Your task to perform on an android device: empty trash in the gmail app Image 0: 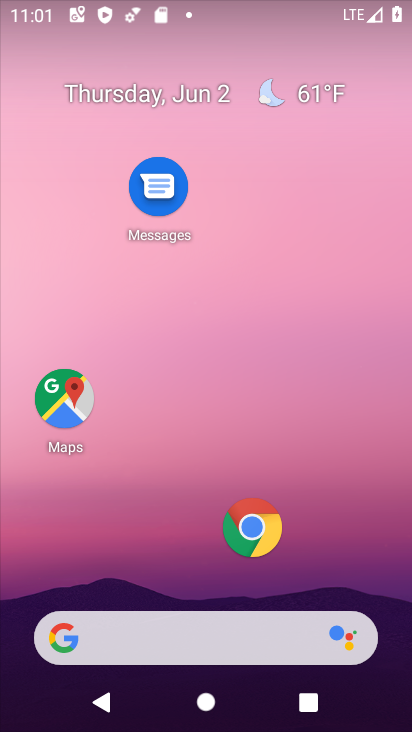
Step 0: press home button
Your task to perform on an android device: empty trash in the gmail app Image 1: 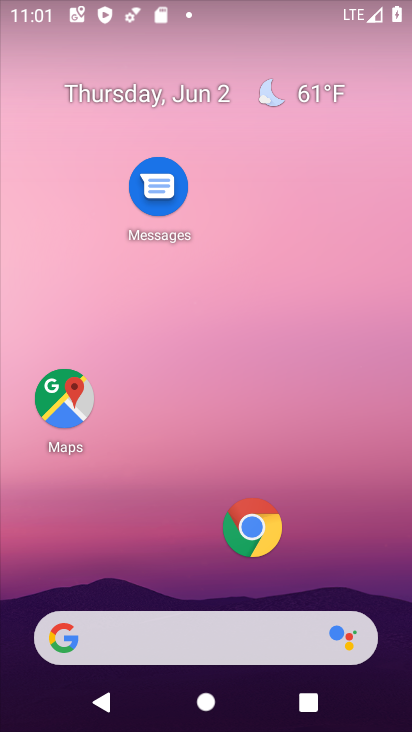
Step 1: drag from (210, 587) to (313, 90)
Your task to perform on an android device: empty trash in the gmail app Image 2: 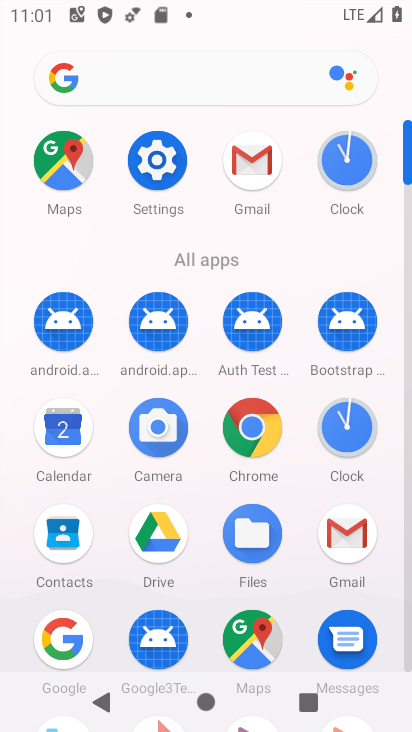
Step 2: click (250, 148)
Your task to perform on an android device: empty trash in the gmail app Image 3: 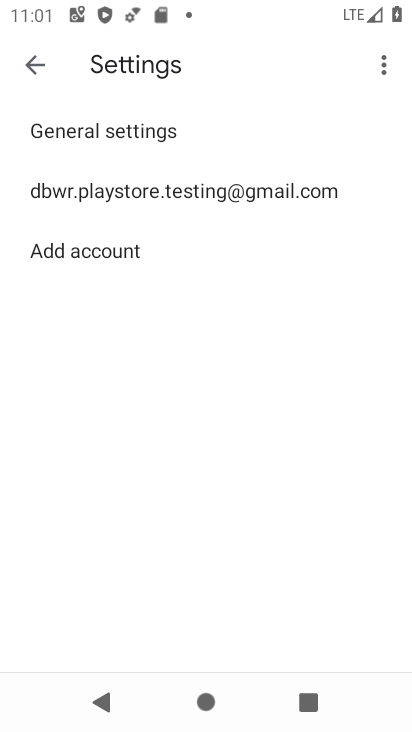
Step 3: click (36, 60)
Your task to perform on an android device: empty trash in the gmail app Image 4: 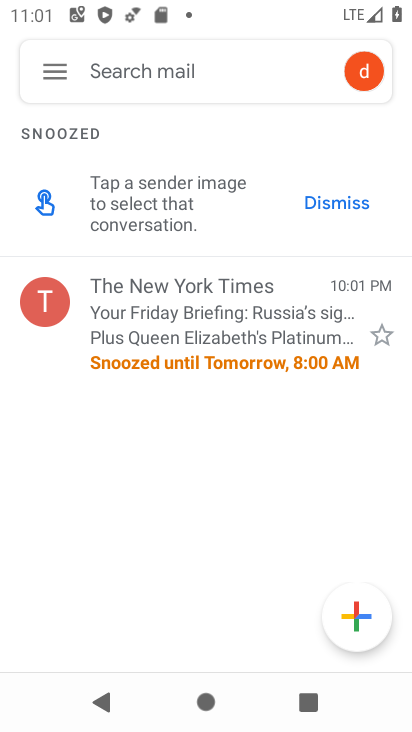
Step 4: click (44, 67)
Your task to perform on an android device: empty trash in the gmail app Image 5: 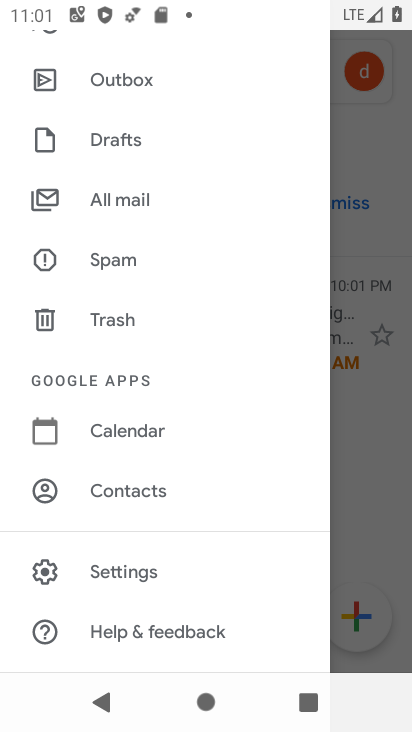
Step 5: click (115, 322)
Your task to perform on an android device: empty trash in the gmail app Image 6: 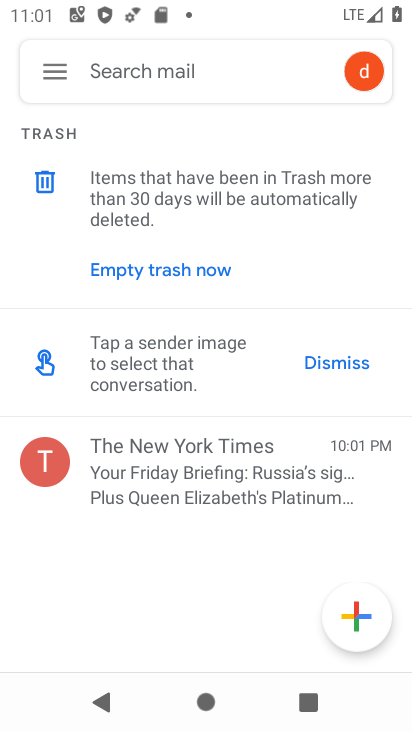
Step 6: click (164, 268)
Your task to perform on an android device: empty trash in the gmail app Image 7: 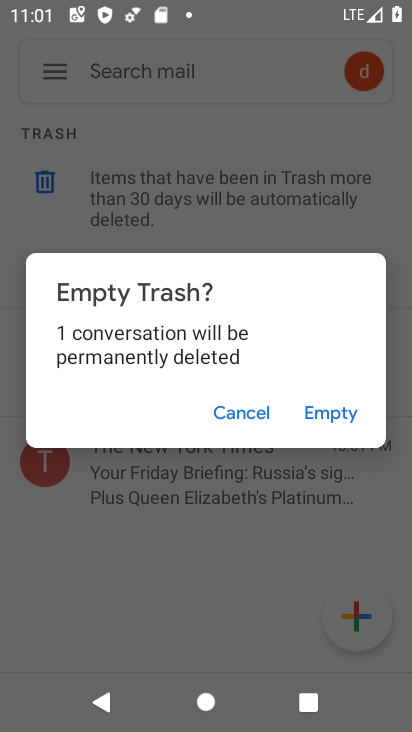
Step 7: click (327, 419)
Your task to perform on an android device: empty trash in the gmail app Image 8: 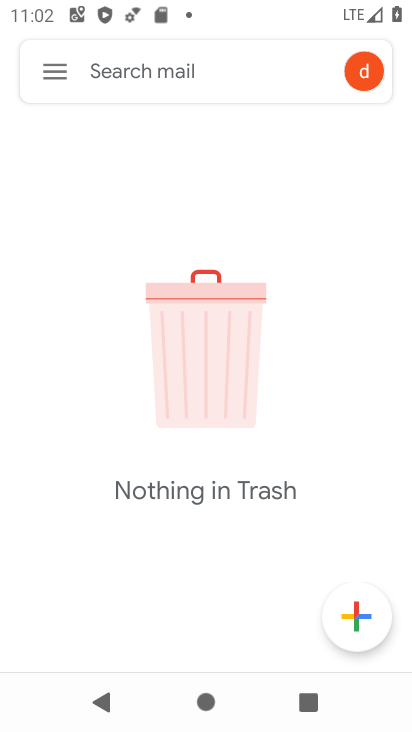
Step 8: task complete